Your task to perform on an android device: set the timer Image 0: 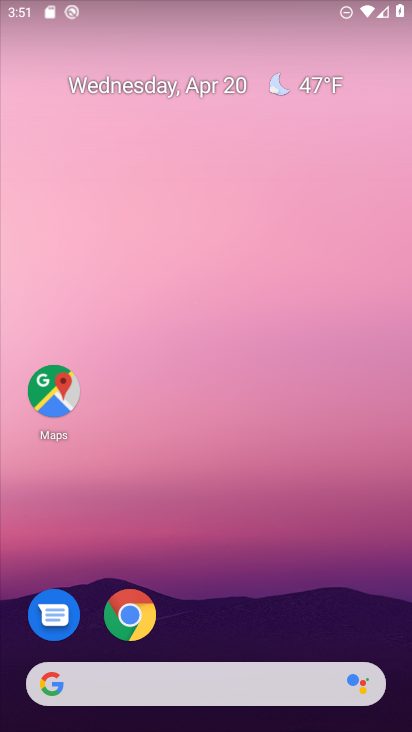
Step 0: drag from (238, 620) to (295, 144)
Your task to perform on an android device: set the timer Image 1: 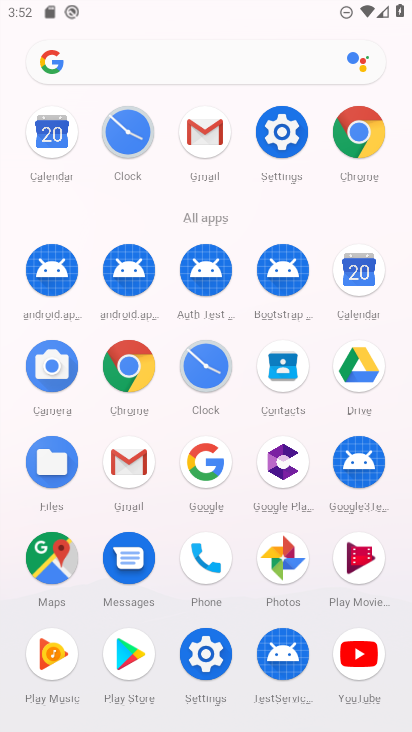
Step 1: click (208, 376)
Your task to perform on an android device: set the timer Image 2: 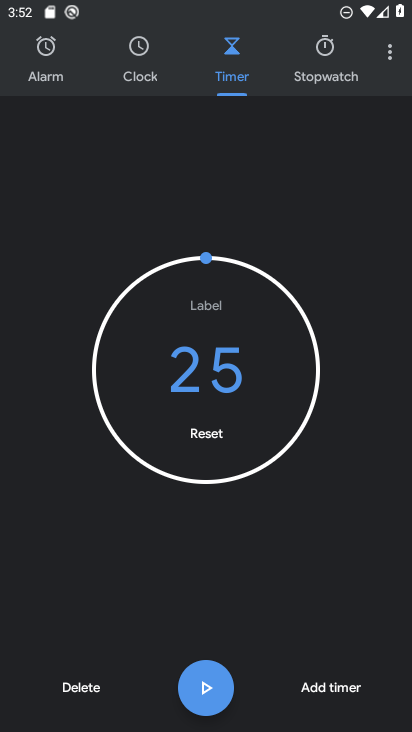
Step 2: click (80, 694)
Your task to perform on an android device: set the timer Image 3: 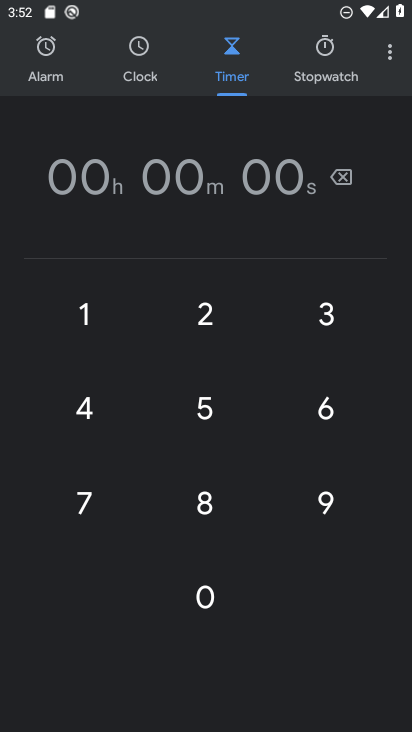
Step 3: click (217, 431)
Your task to perform on an android device: set the timer Image 4: 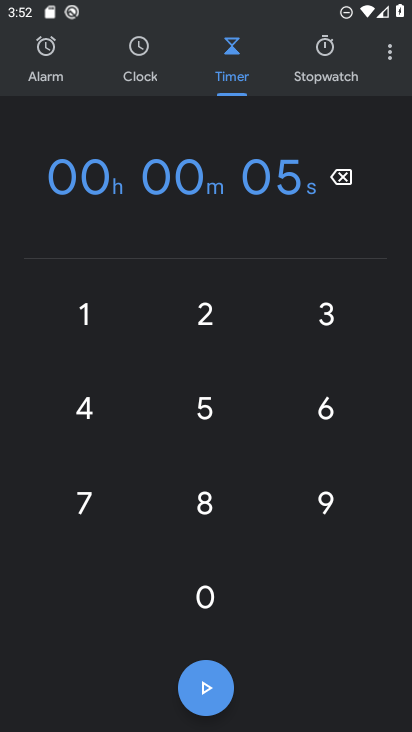
Step 4: click (208, 423)
Your task to perform on an android device: set the timer Image 5: 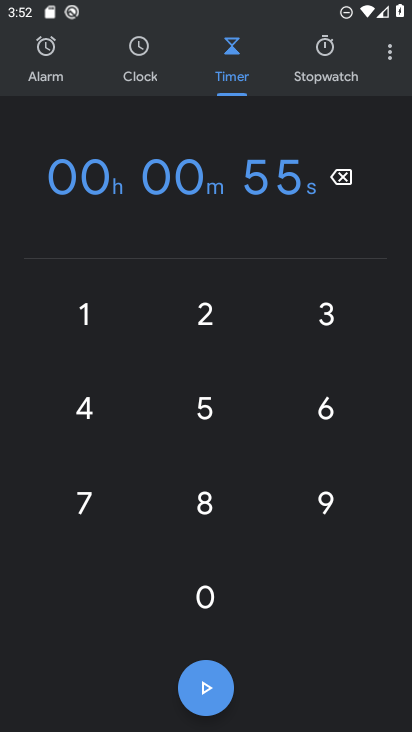
Step 5: click (225, 674)
Your task to perform on an android device: set the timer Image 6: 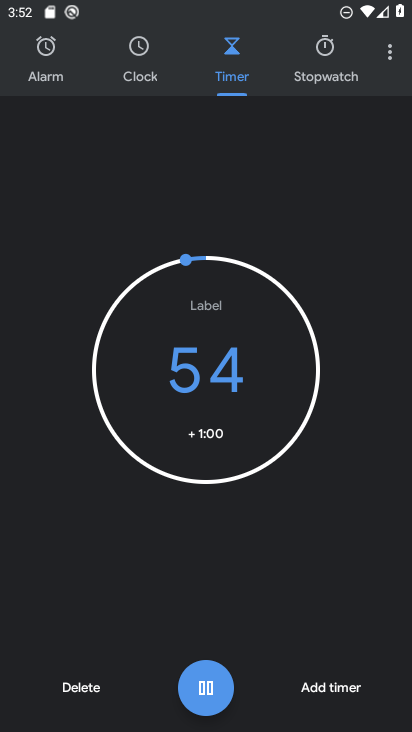
Step 6: task complete